Your task to perform on an android device: turn off location Image 0: 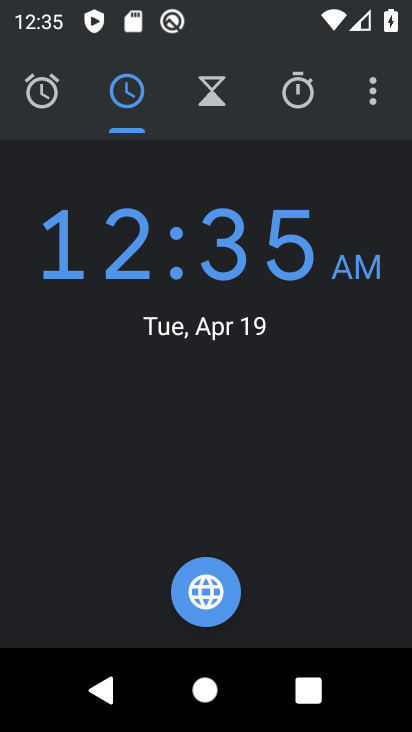
Step 0: press home button
Your task to perform on an android device: turn off location Image 1: 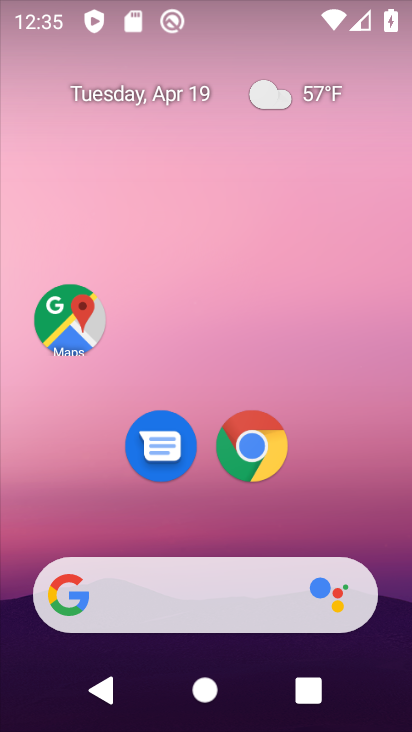
Step 1: drag from (333, 469) to (380, 74)
Your task to perform on an android device: turn off location Image 2: 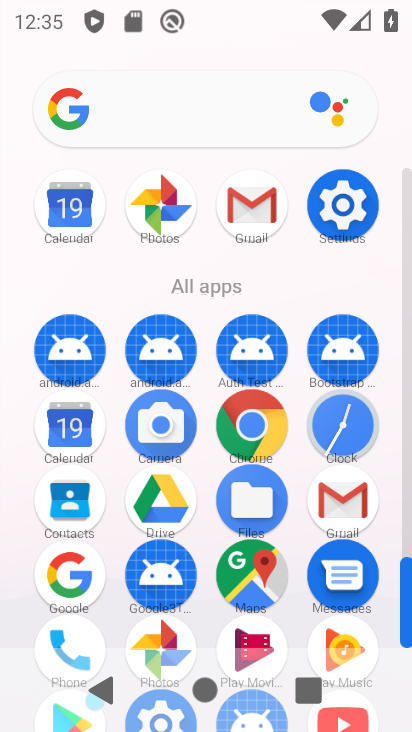
Step 2: click (342, 192)
Your task to perform on an android device: turn off location Image 3: 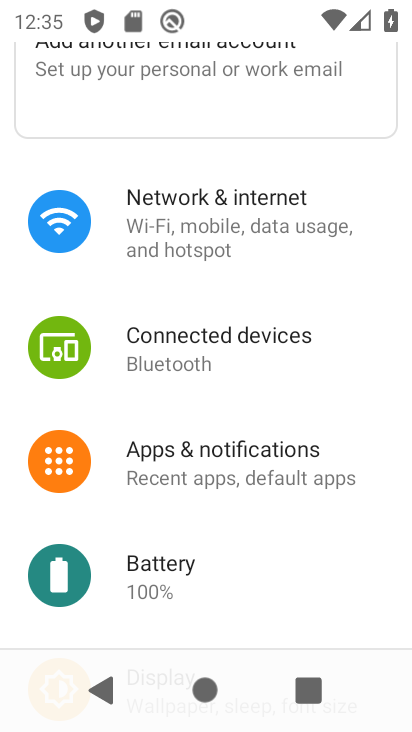
Step 3: drag from (265, 526) to (302, 154)
Your task to perform on an android device: turn off location Image 4: 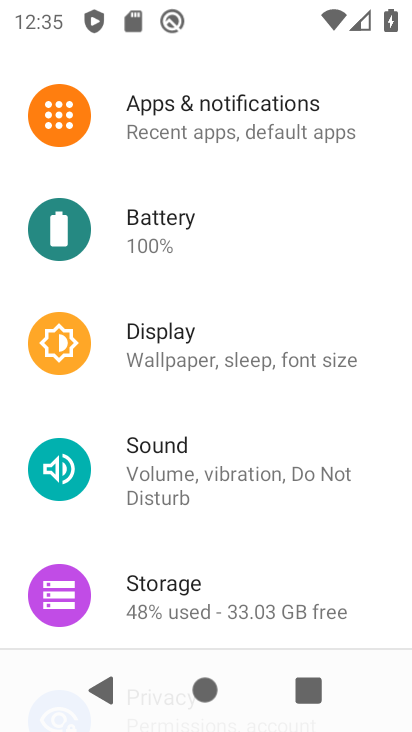
Step 4: drag from (312, 493) to (316, 232)
Your task to perform on an android device: turn off location Image 5: 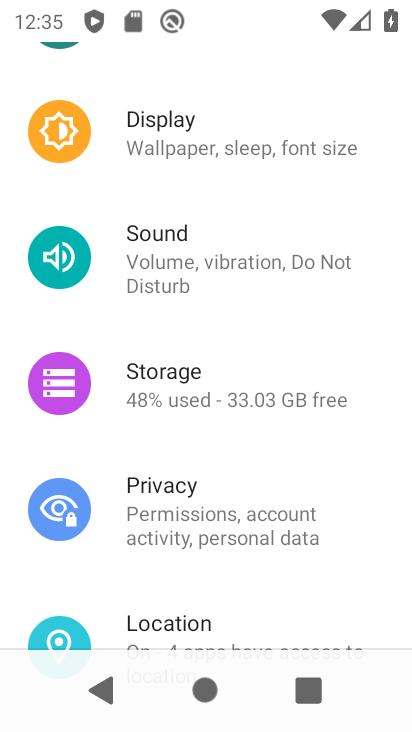
Step 5: drag from (270, 480) to (291, 246)
Your task to perform on an android device: turn off location Image 6: 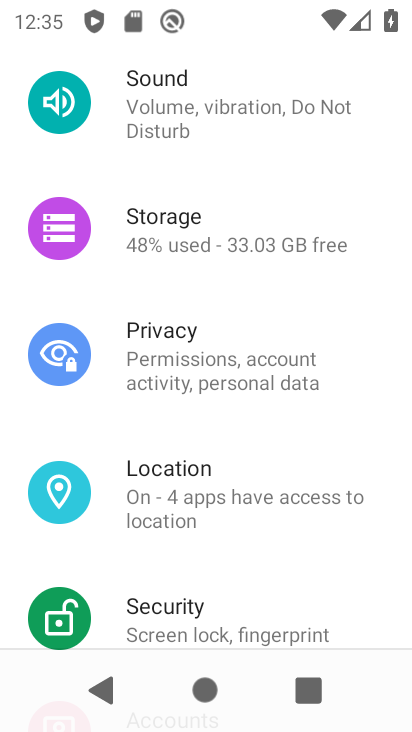
Step 6: click (189, 470)
Your task to perform on an android device: turn off location Image 7: 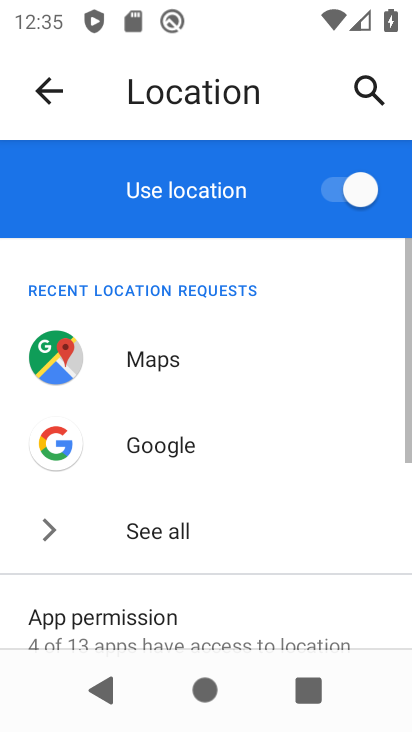
Step 7: click (342, 183)
Your task to perform on an android device: turn off location Image 8: 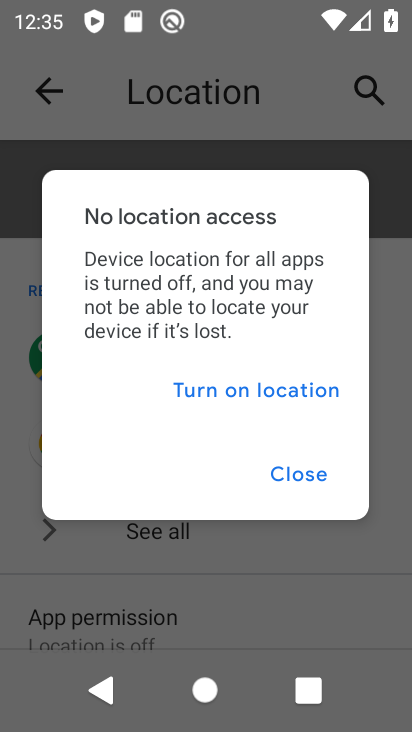
Step 8: click (317, 466)
Your task to perform on an android device: turn off location Image 9: 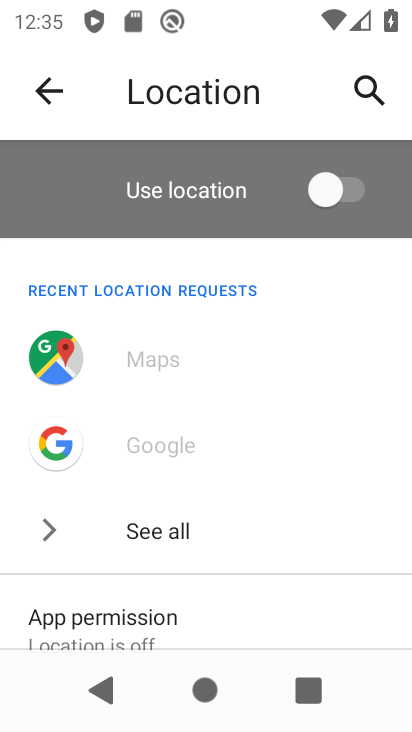
Step 9: task complete